Your task to perform on an android device: turn pop-ups off in chrome Image 0: 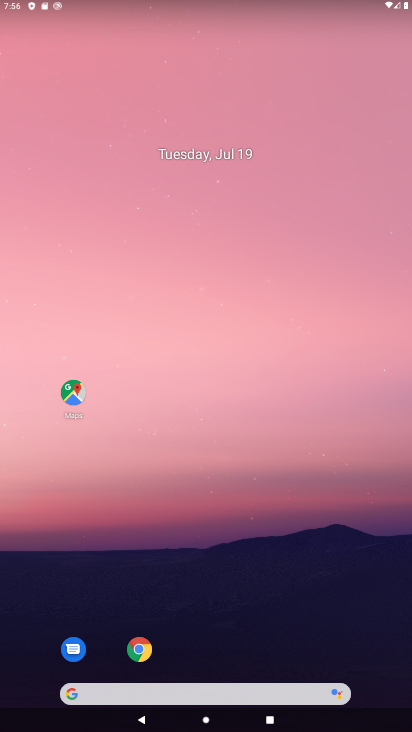
Step 0: click (148, 643)
Your task to perform on an android device: turn pop-ups off in chrome Image 1: 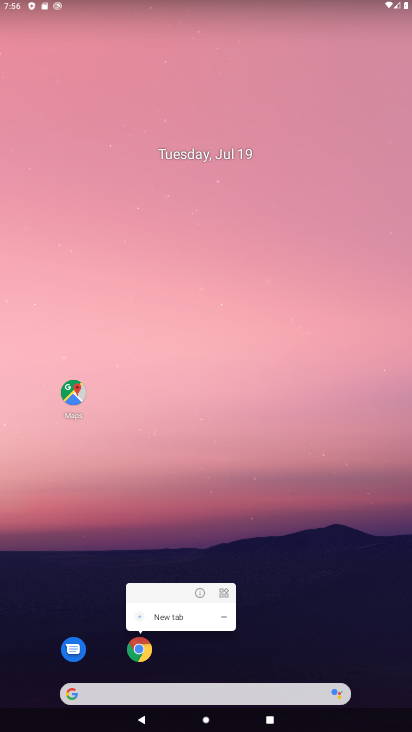
Step 1: click (148, 643)
Your task to perform on an android device: turn pop-ups off in chrome Image 2: 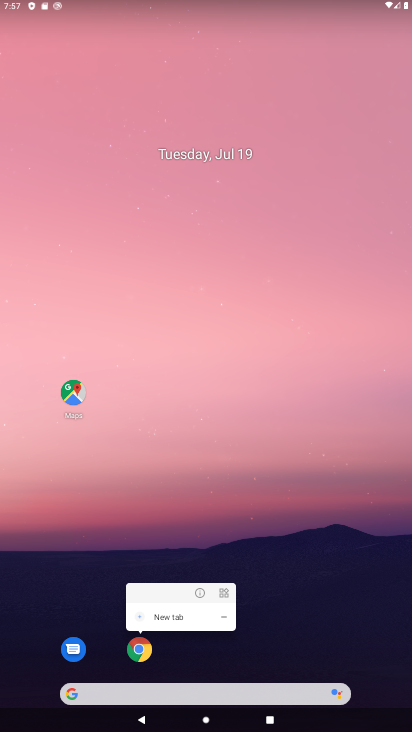
Step 2: click (135, 655)
Your task to perform on an android device: turn pop-ups off in chrome Image 3: 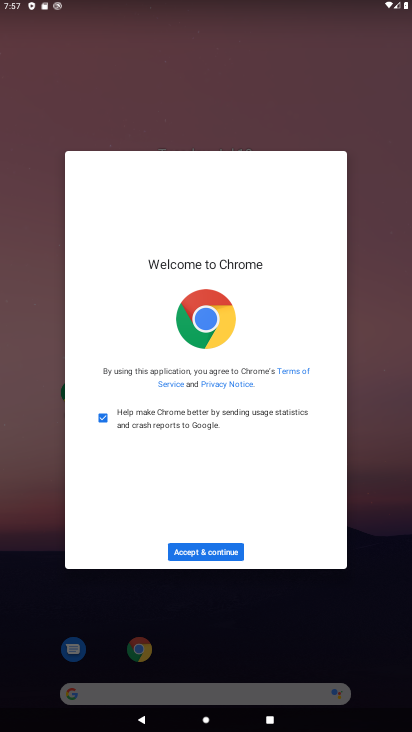
Step 3: click (200, 546)
Your task to perform on an android device: turn pop-ups off in chrome Image 4: 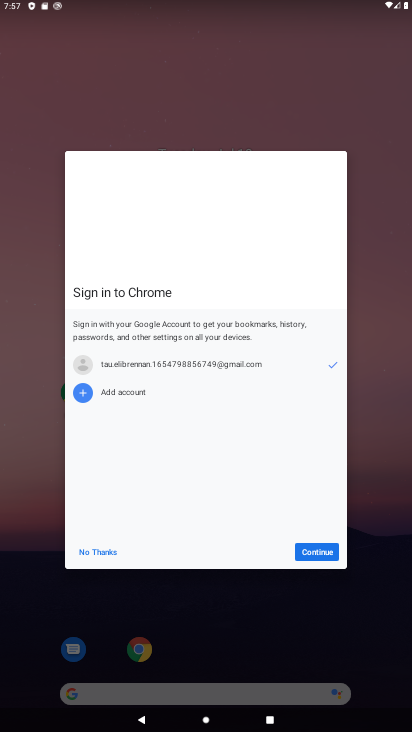
Step 4: click (318, 554)
Your task to perform on an android device: turn pop-ups off in chrome Image 5: 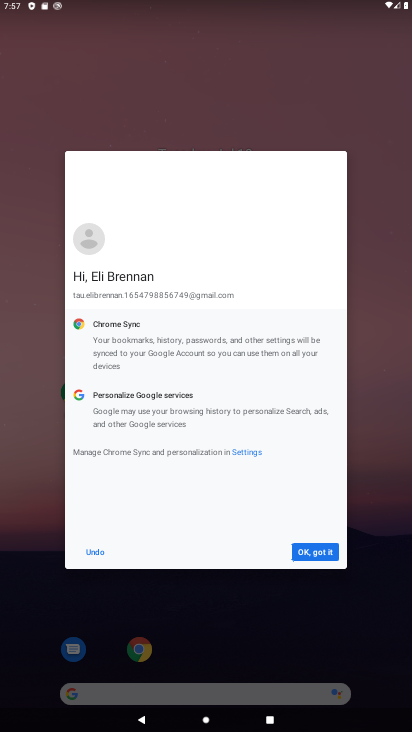
Step 5: click (318, 554)
Your task to perform on an android device: turn pop-ups off in chrome Image 6: 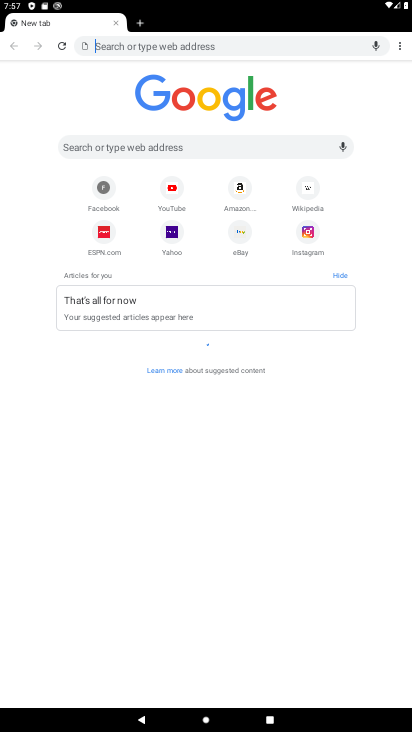
Step 6: click (394, 45)
Your task to perform on an android device: turn pop-ups off in chrome Image 7: 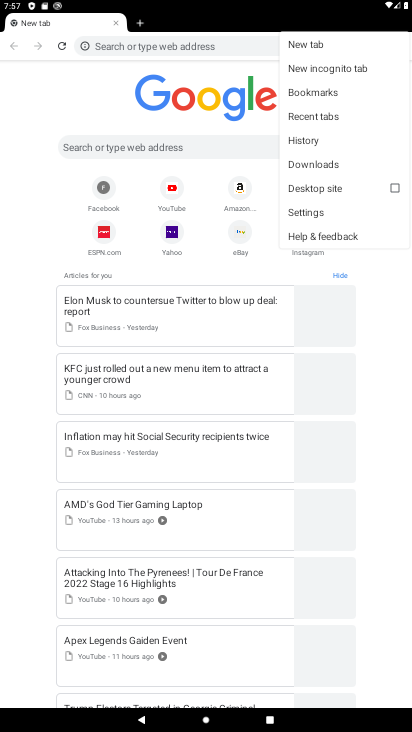
Step 7: click (301, 208)
Your task to perform on an android device: turn pop-ups off in chrome Image 8: 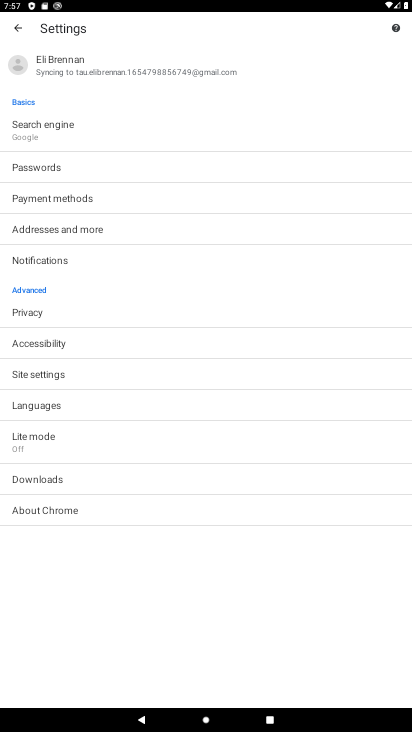
Step 8: click (44, 378)
Your task to perform on an android device: turn pop-ups off in chrome Image 9: 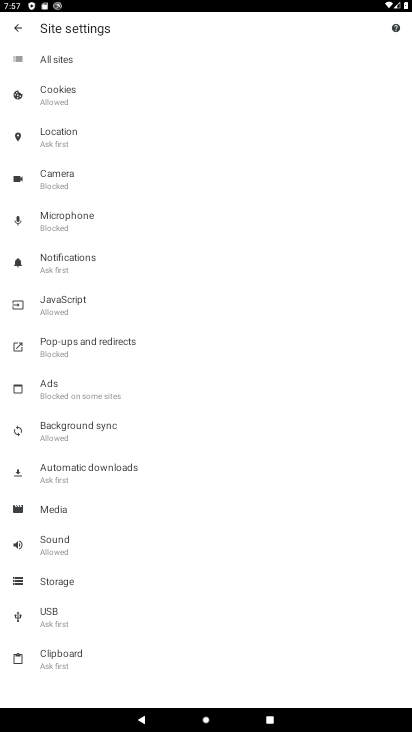
Step 9: click (54, 348)
Your task to perform on an android device: turn pop-ups off in chrome Image 10: 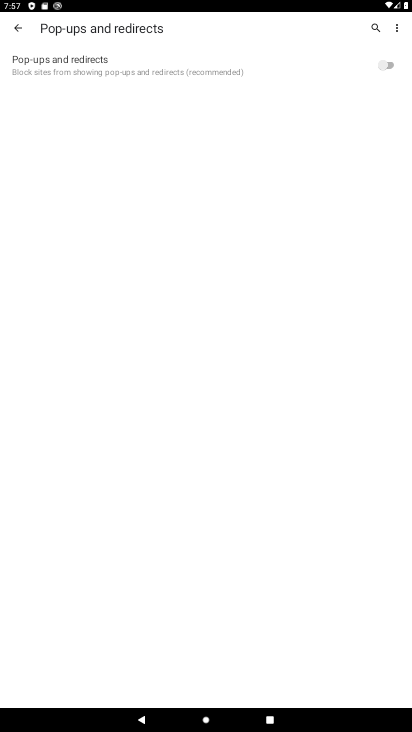
Step 10: task complete